Your task to perform on an android device: Open Youtube and go to "Your channel" Image 0: 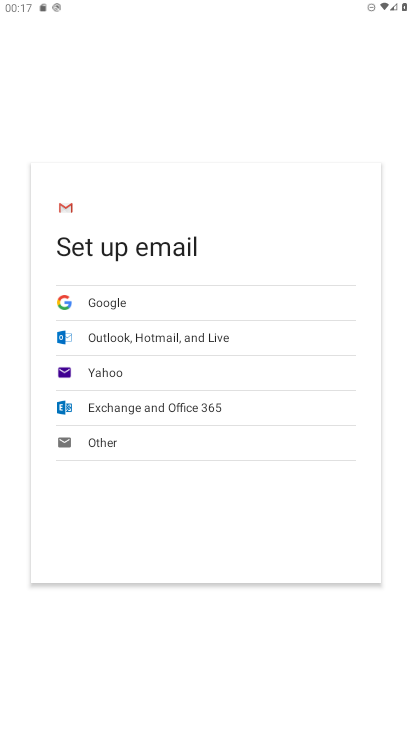
Step 0: press home button
Your task to perform on an android device: Open Youtube and go to "Your channel" Image 1: 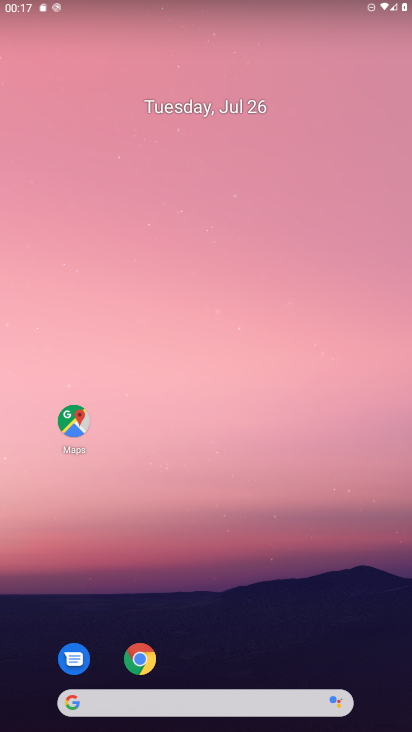
Step 1: drag from (204, 616) to (211, 2)
Your task to perform on an android device: Open Youtube and go to "Your channel" Image 2: 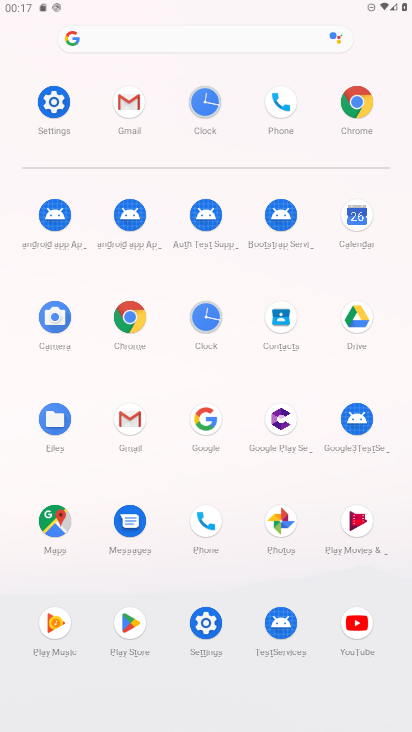
Step 2: click (347, 626)
Your task to perform on an android device: Open Youtube and go to "Your channel" Image 3: 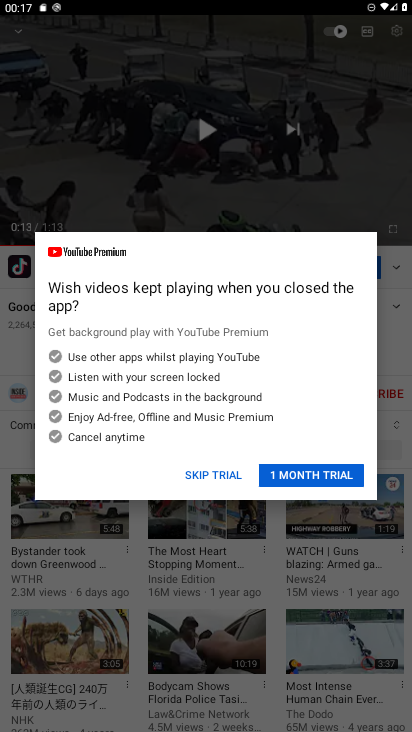
Step 3: click (227, 485)
Your task to perform on an android device: Open Youtube and go to "Your channel" Image 4: 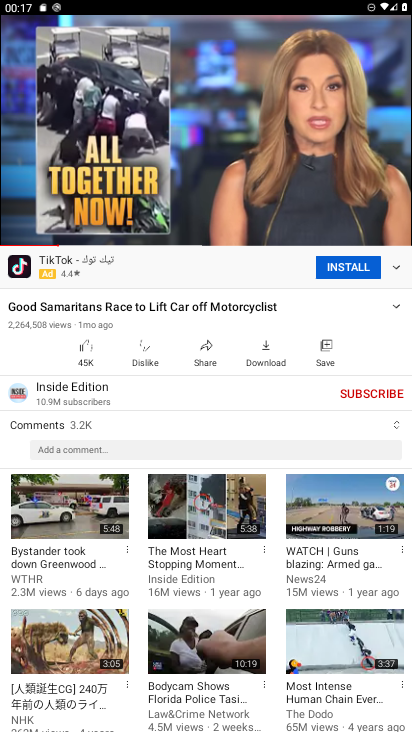
Step 4: drag from (198, 342) to (253, 720)
Your task to perform on an android device: Open Youtube and go to "Your channel" Image 5: 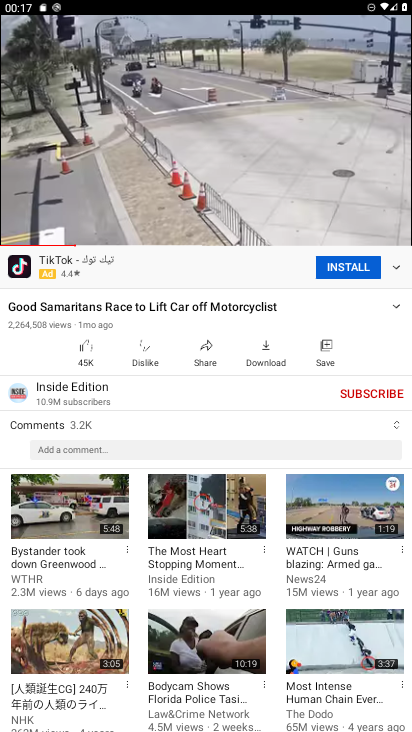
Step 5: drag from (277, 57) to (411, 723)
Your task to perform on an android device: Open Youtube and go to "Your channel" Image 6: 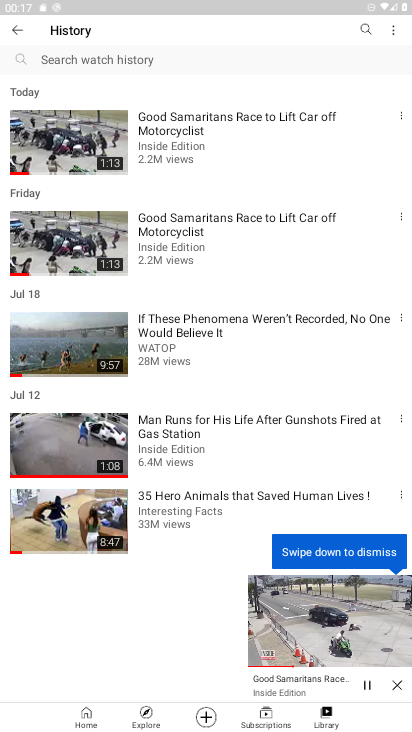
Step 6: click (14, 36)
Your task to perform on an android device: Open Youtube and go to "Your channel" Image 7: 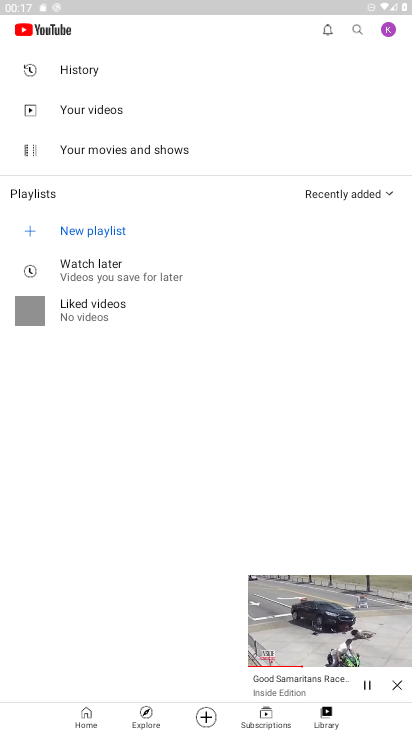
Step 7: click (390, 29)
Your task to perform on an android device: Open Youtube and go to "Your channel" Image 8: 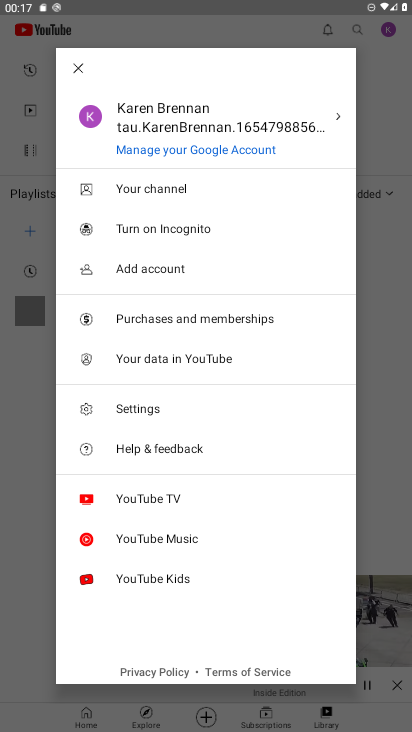
Step 8: click (158, 197)
Your task to perform on an android device: Open Youtube and go to "Your channel" Image 9: 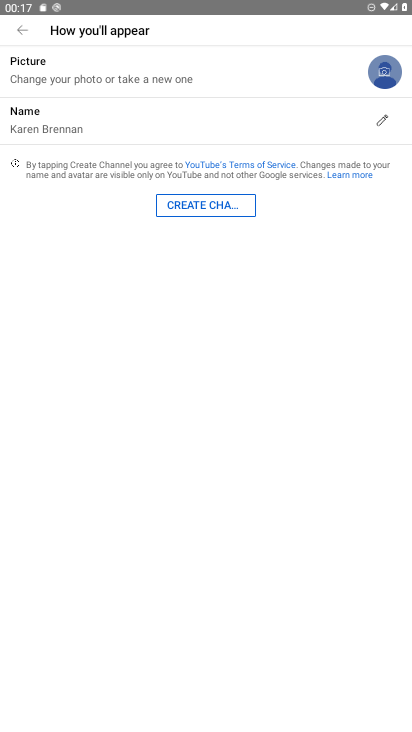
Step 9: task complete